Your task to perform on an android device: Show me recent news Image 0: 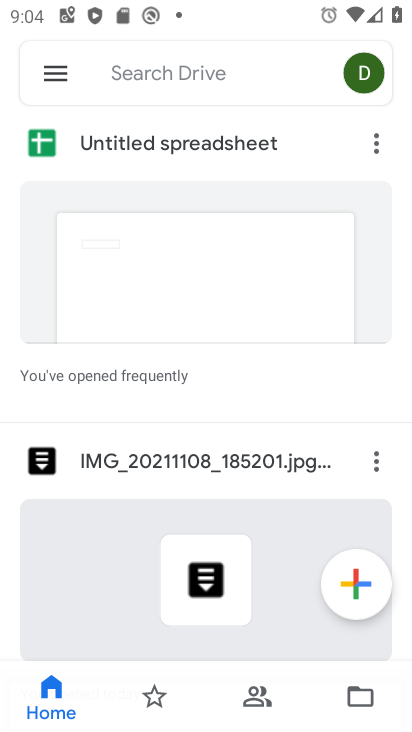
Step 0: press home button
Your task to perform on an android device: Show me recent news Image 1: 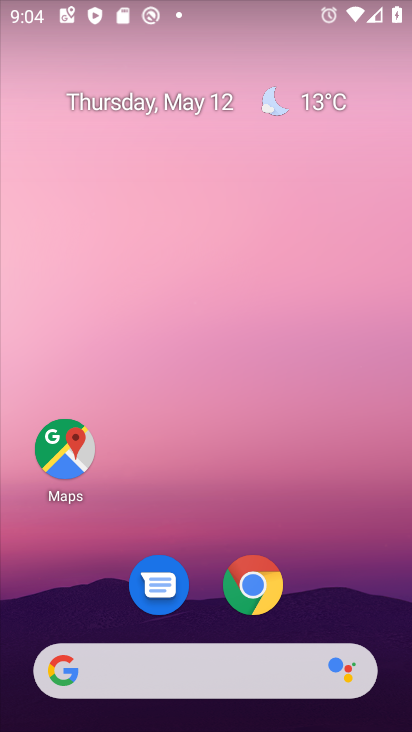
Step 1: click (230, 673)
Your task to perform on an android device: Show me recent news Image 2: 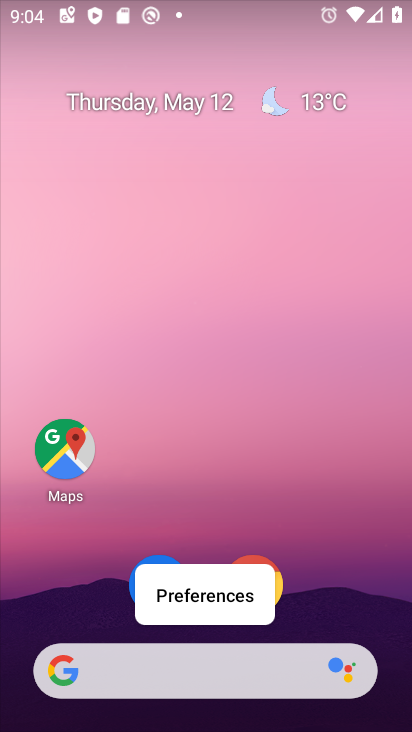
Step 2: click (223, 676)
Your task to perform on an android device: Show me recent news Image 3: 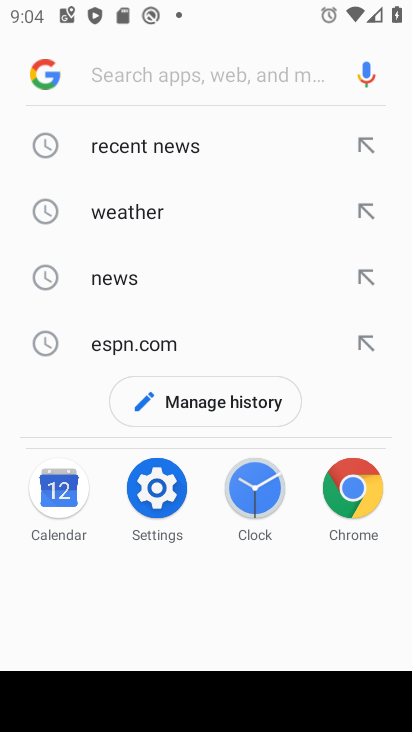
Step 3: click (91, 142)
Your task to perform on an android device: Show me recent news Image 4: 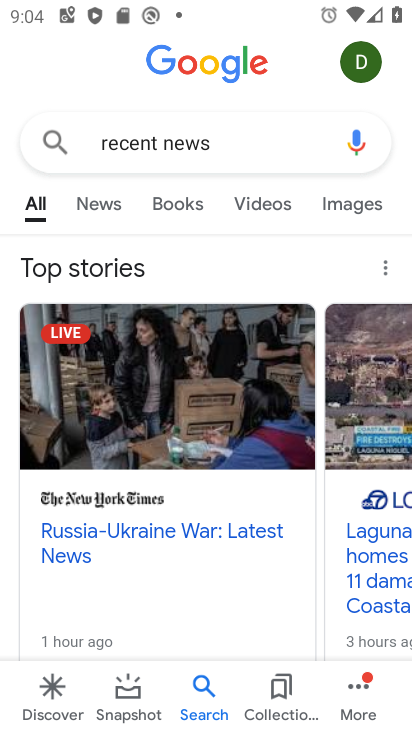
Step 4: task complete